Your task to perform on an android device: Open Chrome and go to settings Image 0: 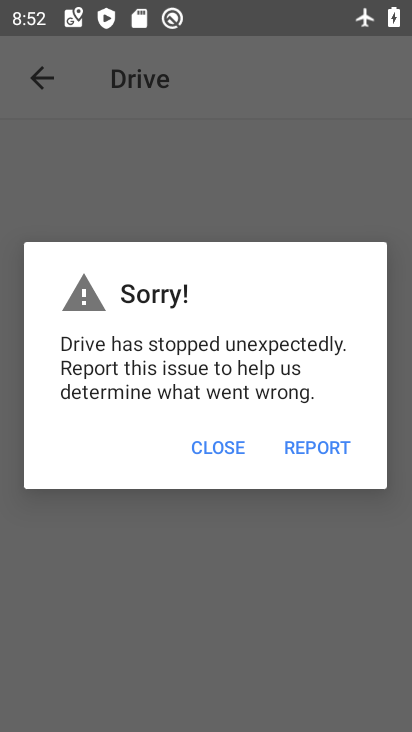
Step 0: drag from (18, 289) to (320, 176)
Your task to perform on an android device: Open Chrome and go to settings Image 1: 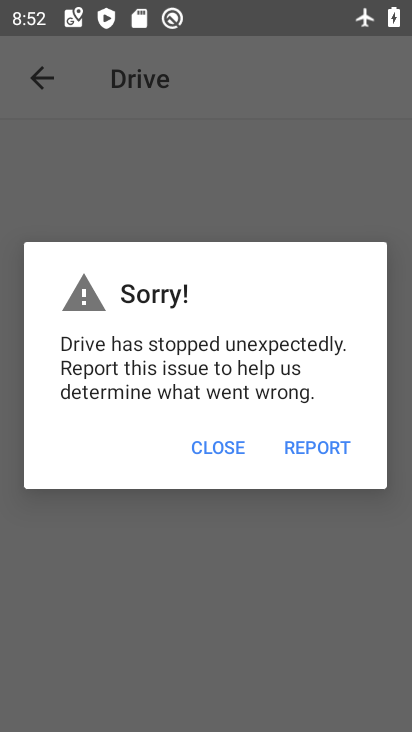
Step 1: press home button
Your task to perform on an android device: Open Chrome and go to settings Image 2: 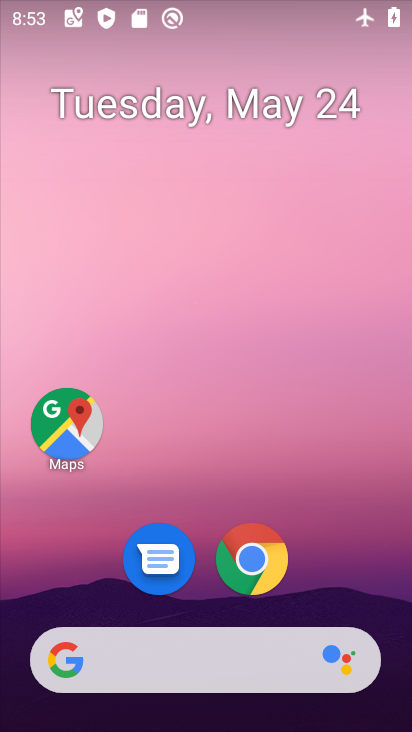
Step 2: click (233, 596)
Your task to perform on an android device: Open Chrome and go to settings Image 3: 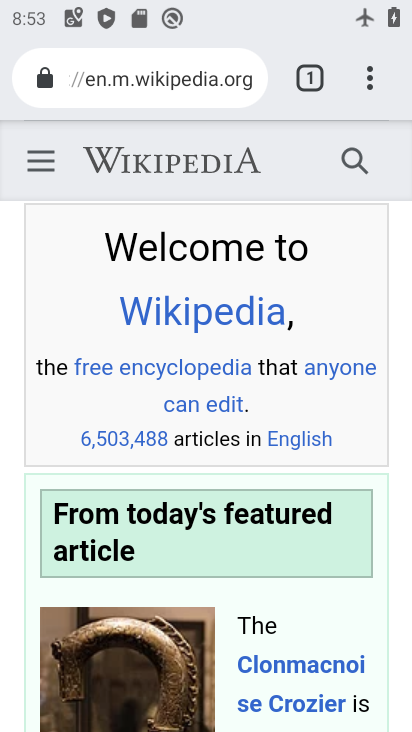
Step 3: task complete